Your task to perform on an android device: create a new album in the google photos Image 0: 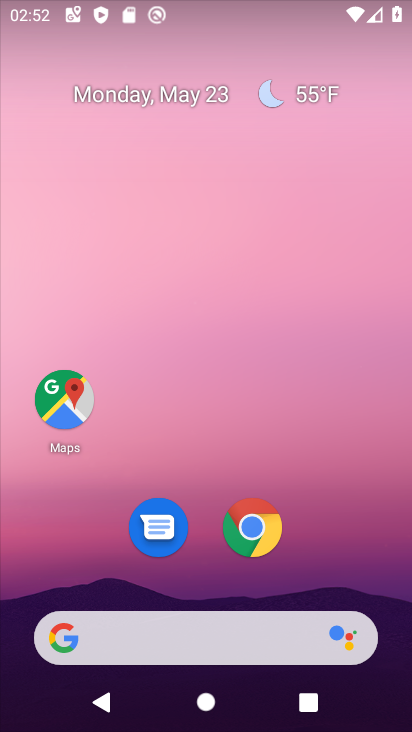
Step 0: drag from (331, 514) to (258, 8)
Your task to perform on an android device: create a new album in the google photos Image 1: 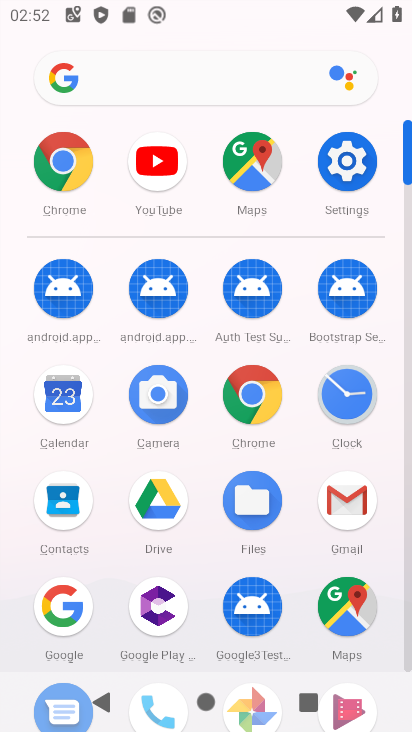
Step 1: drag from (24, 584) to (6, 257)
Your task to perform on an android device: create a new album in the google photos Image 2: 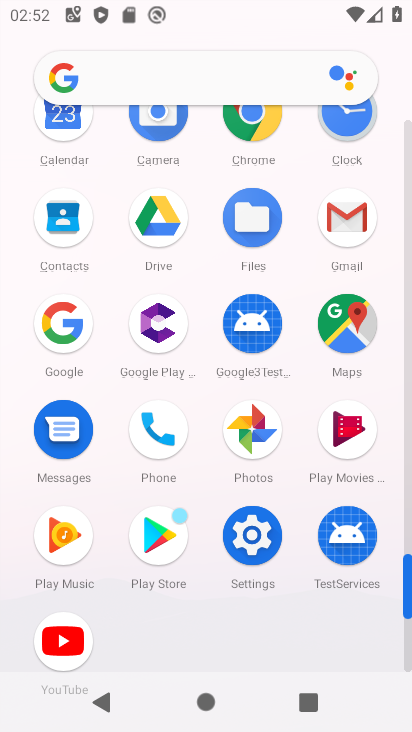
Step 2: click (249, 426)
Your task to perform on an android device: create a new album in the google photos Image 3: 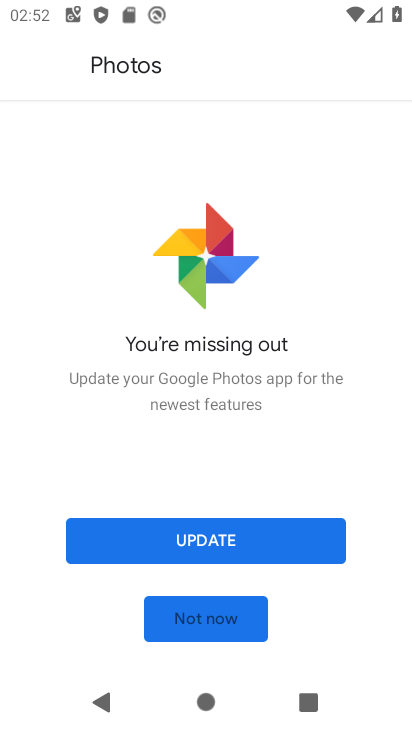
Step 3: click (195, 534)
Your task to perform on an android device: create a new album in the google photos Image 4: 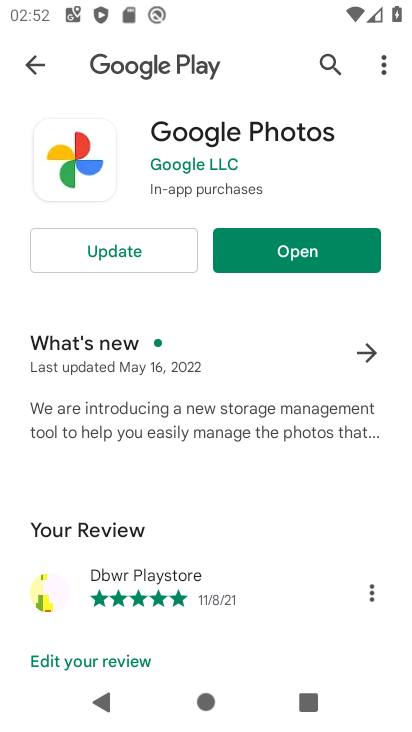
Step 4: click (127, 253)
Your task to perform on an android device: create a new album in the google photos Image 5: 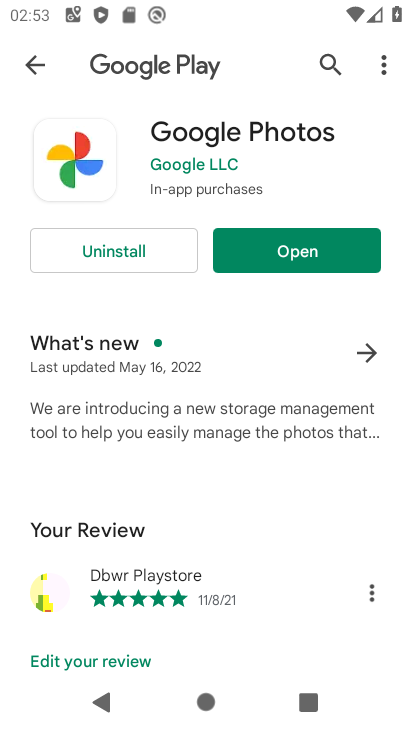
Step 5: click (234, 246)
Your task to perform on an android device: create a new album in the google photos Image 6: 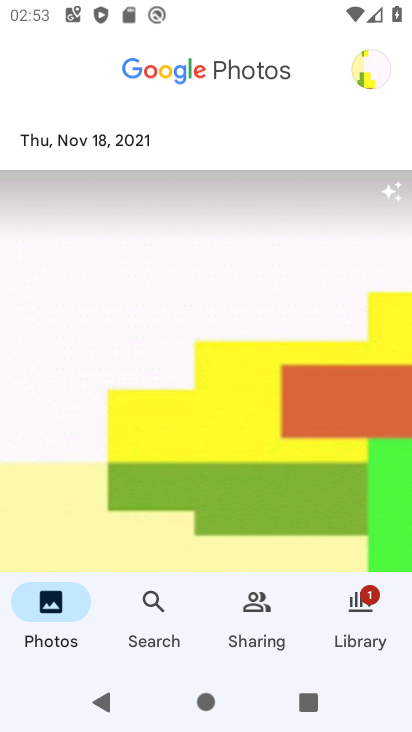
Step 6: click (58, 619)
Your task to perform on an android device: create a new album in the google photos Image 7: 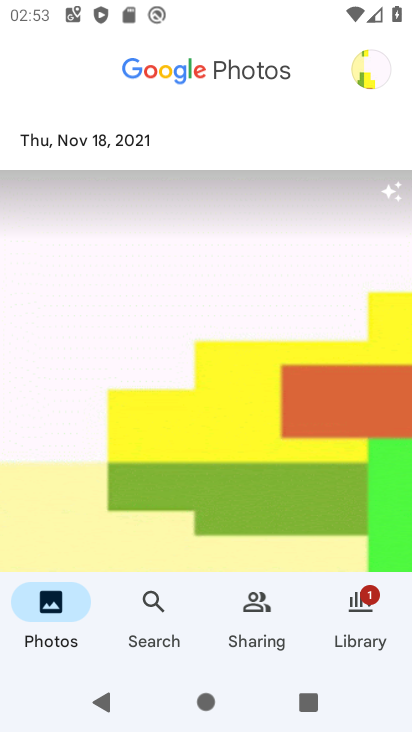
Step 7: drag from (201, 464) to (206, 122)
Your task to perform on an android device: create a new album in the google photos Image 8: 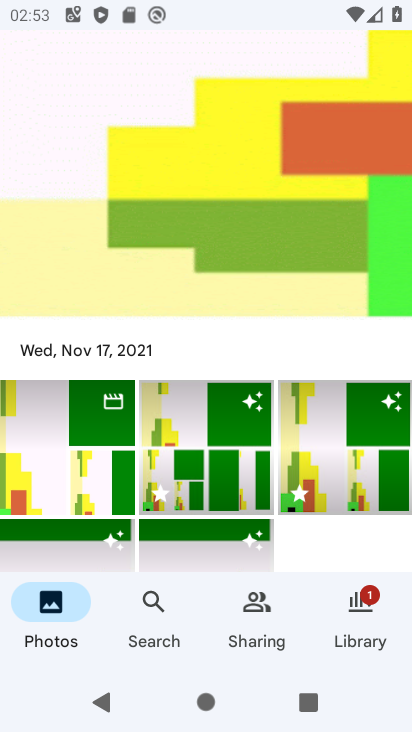
Step 8: click (85, 452)
Your task to perform on an android device: create a new album in the google photos Image 9: 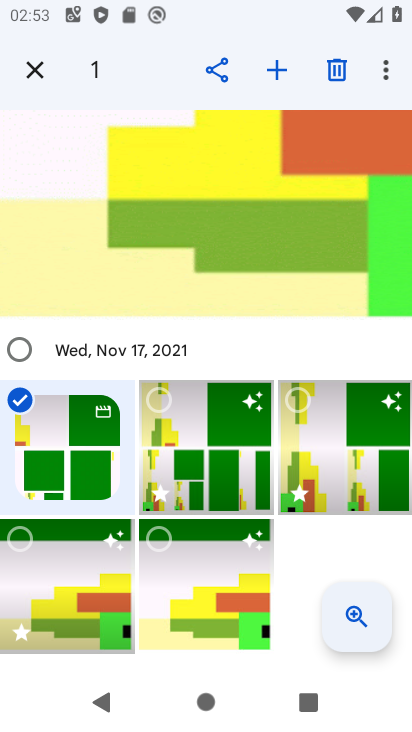
Step 9: click (277, 80)
Your task to perform on an android device: create a new album in the google photos Image 10: 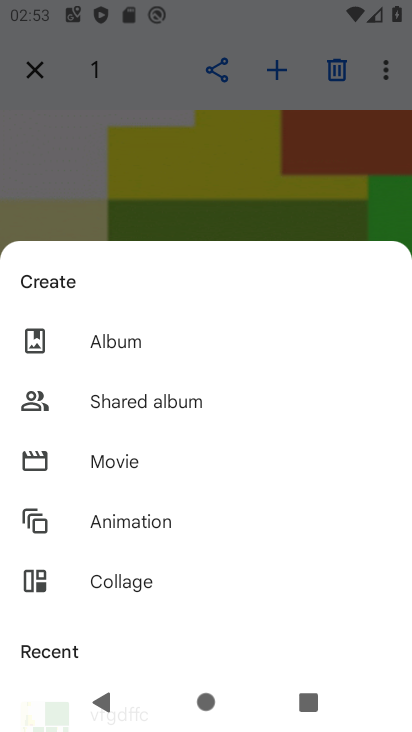
Step 10: click (131, 333)
Your task to perform on an android device: create a new album in the google photos Image 11: 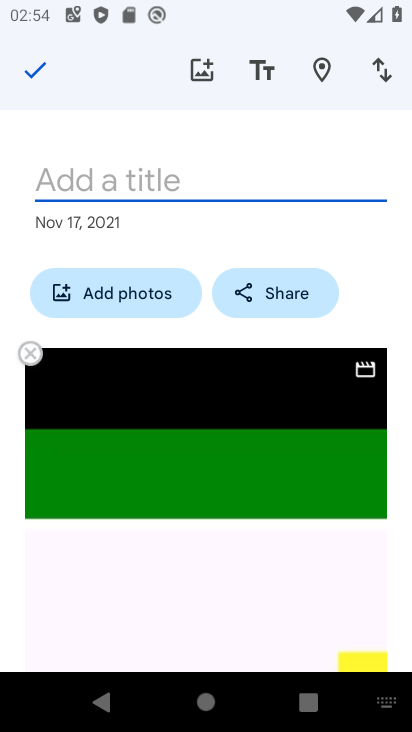
Step 11: type "ASdfc"
Your task to perform on an android device: create a new album in the google photos Image 12: 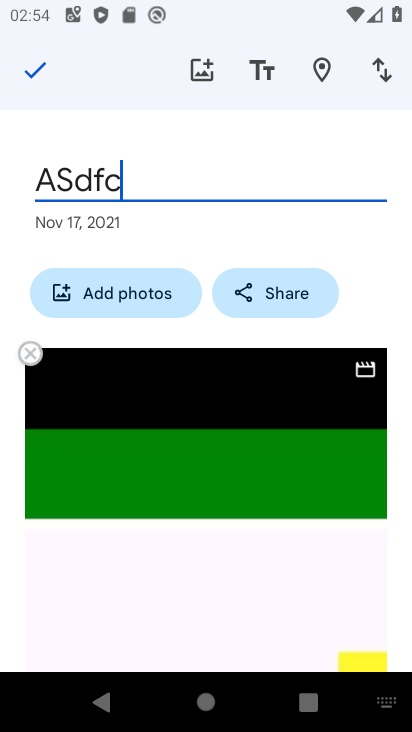
Step 12: type ""
Your task to perform on an android device: create a new album in the google photos Image 13: 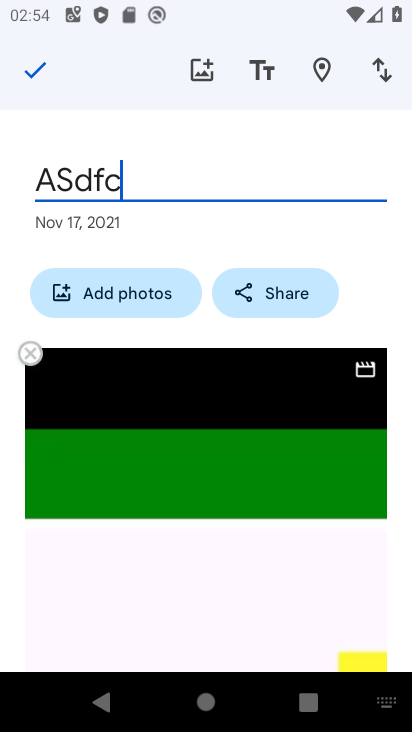
Step 13: click (33, 70)
Your task to perform on an android device: create a new album in the google photos Image 14: 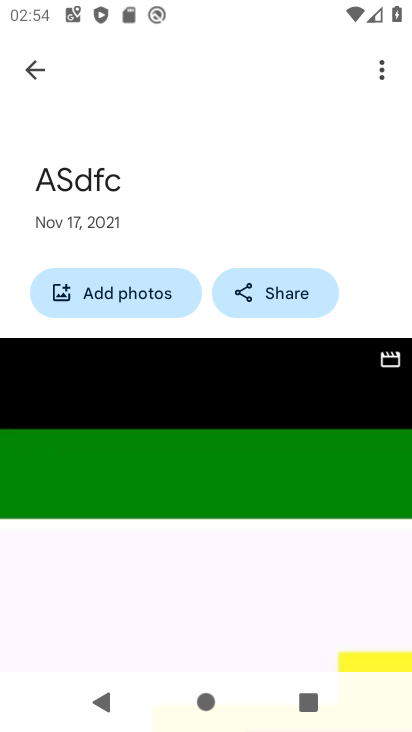
Step 14: task complete